Your task to perform on an android device: Check the news Image 0: 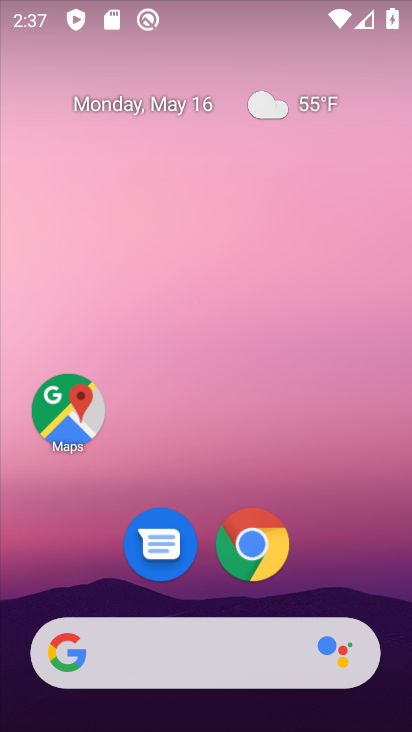
Step 0: drag from (330, 490) to (308, 123)
Your task to perform on an android device: Check the news Image 1: 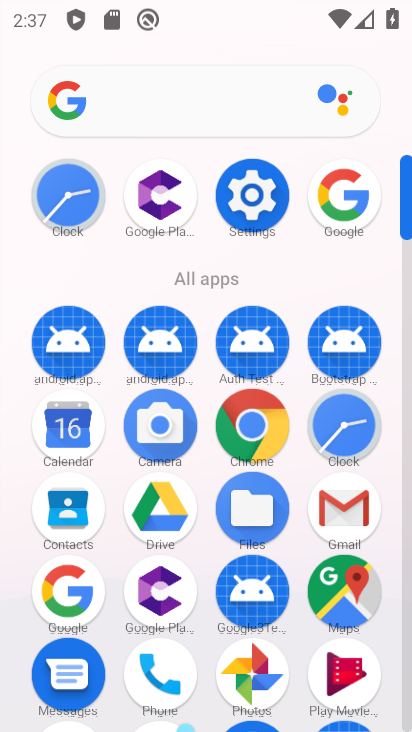
Step 1: click (234, 457)
Your task to perform on an android device: Check the news Image 2: 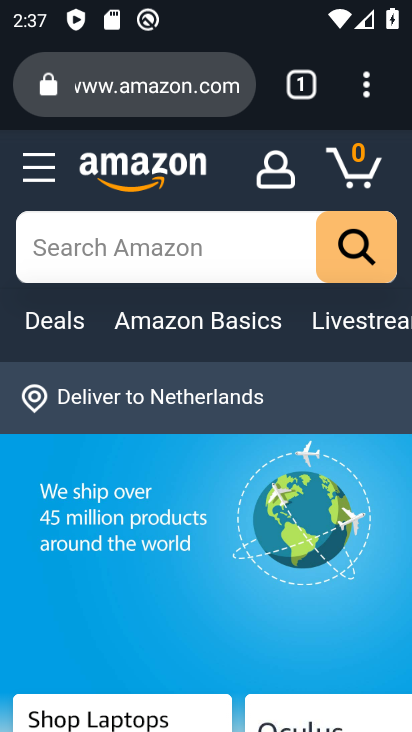
Step 2: task complete